Your task to perform on an android device: Look up the best rated coffee maker on Lowe's. Image 0: 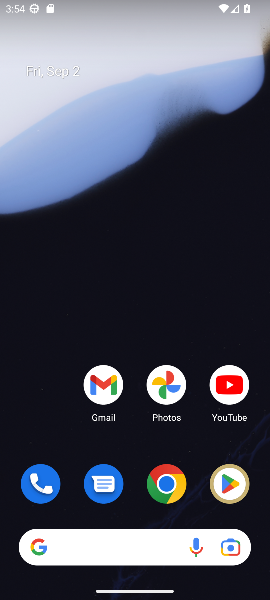
Step 0: click (160, 487)
Your task to perform on an android device: Look up the best rated coffee maker on Lowe's. Image 1: 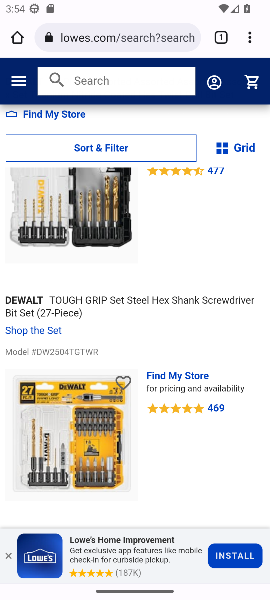
Step 1: click (128, 80)
Your task to perform on an android device: Look up the best rated coffee maker on Lowe's. Image 2: 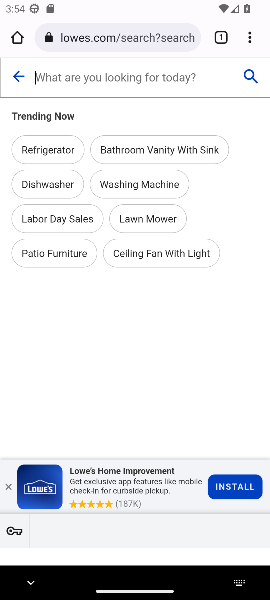
Step 2: type "coffee maker"
Your task to perform on an android device: Look up the best rated coffee maker on Lowe's. Image 3: 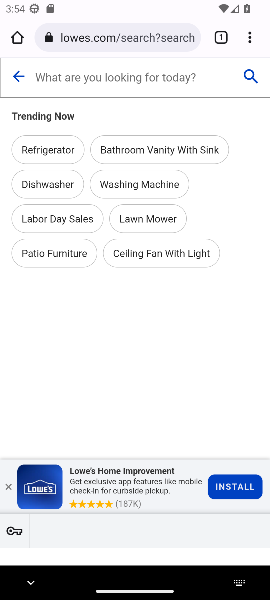
Step 3: press enter
Your task to perform on an android device: Look up the best rated coffee maker on Lowe's. Image 4: 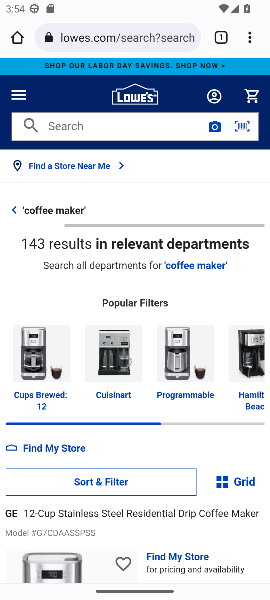
Step 4: task complete